Your task to perform on an android device: check google app version Image 0: 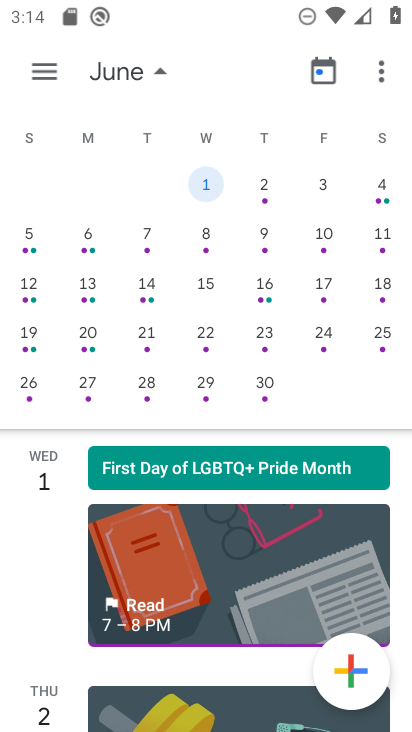
Step 0: press home button
Your task to perform on an android device: check google app version Image 1: 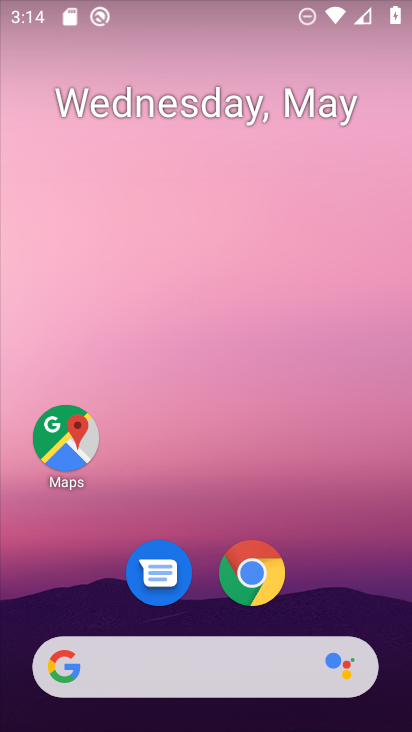
Step 1: drag from (338, 487) to (326, 65)
Your task to perform on an android device: check google app version Image 2: 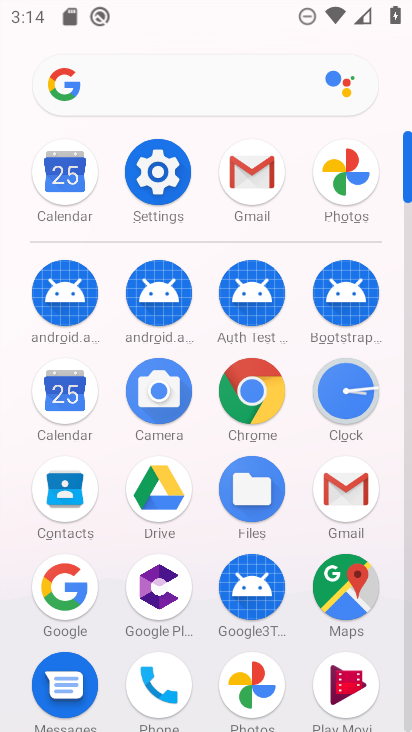
Step 2: click (60, 571)
Your task to perform on an android device: check google app version Image 3: 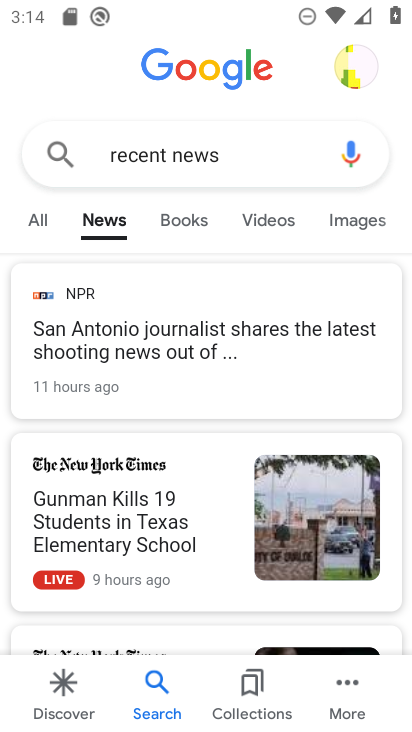
Step 3: click (349, 696)
Your task to perform on an android device: check google app version Image 4: 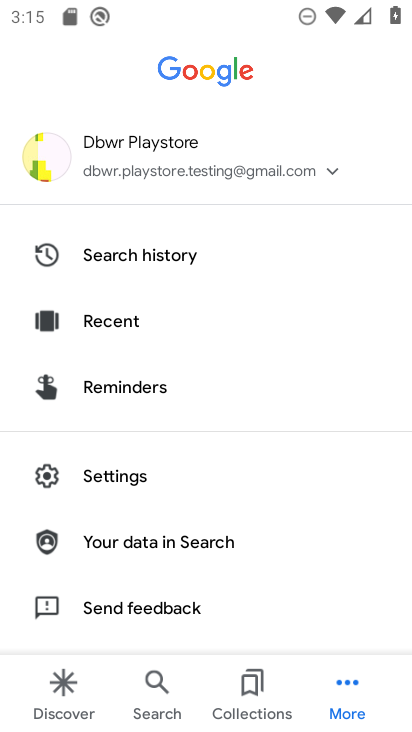
Step 4: drag from (174, 570) to (163, 272)
Your task to perform on an android device: check google app version Image 5: 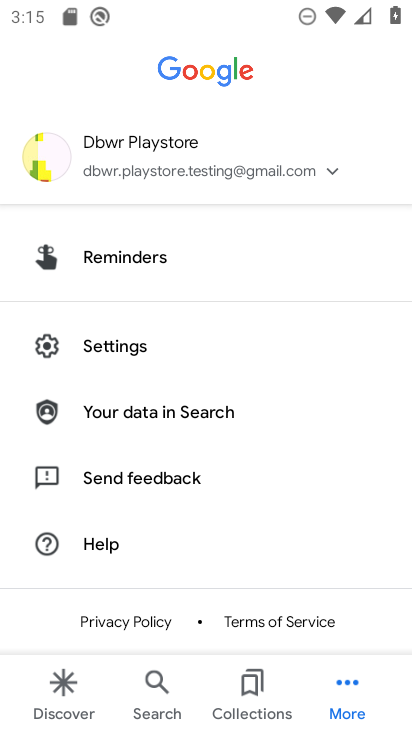
Step 5: click (121, 339)
Your task to perform on an android device: check google app version Image 6: 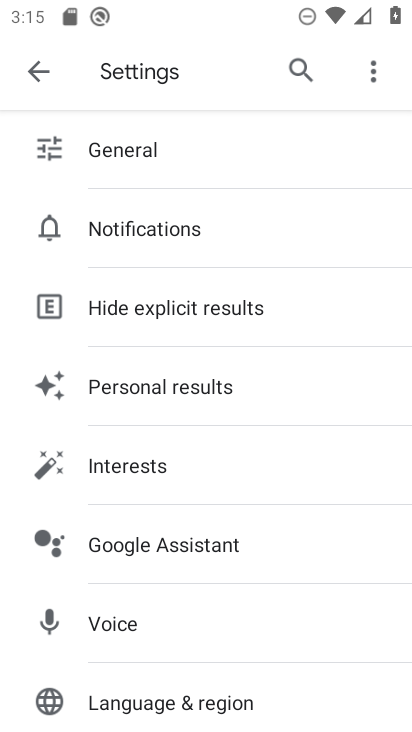
Step 6: drag from (166, 596) to (171, 249)
Your task to perform on an android device: check google app version Image 7: 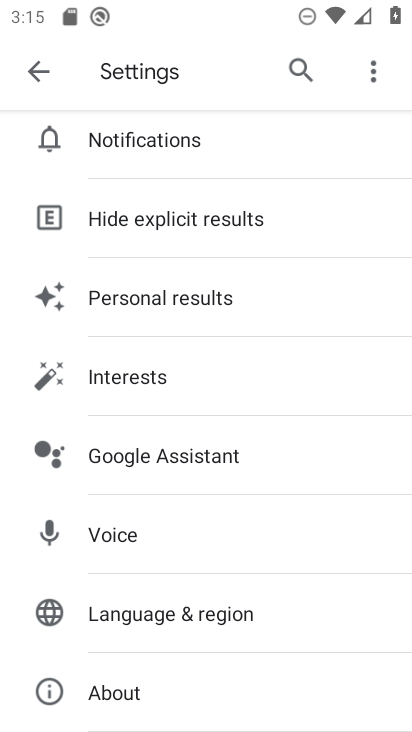
Step 7: click (129, 706)
Your task to perform on an android device: check google app version Image 8: 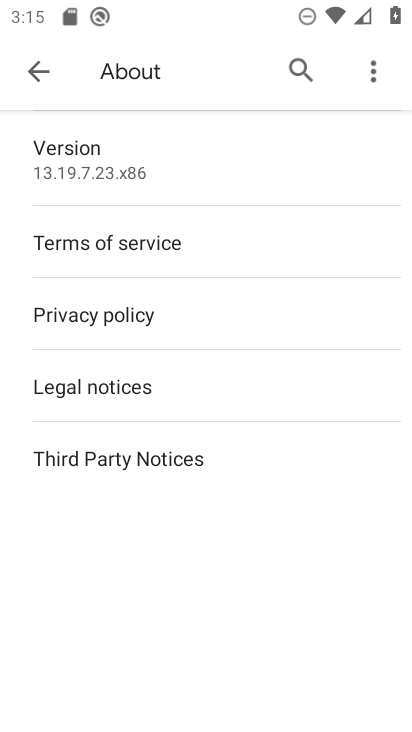
Step 8: click (116, 157)
Your task to perform on an android device: check google app version Image 9: 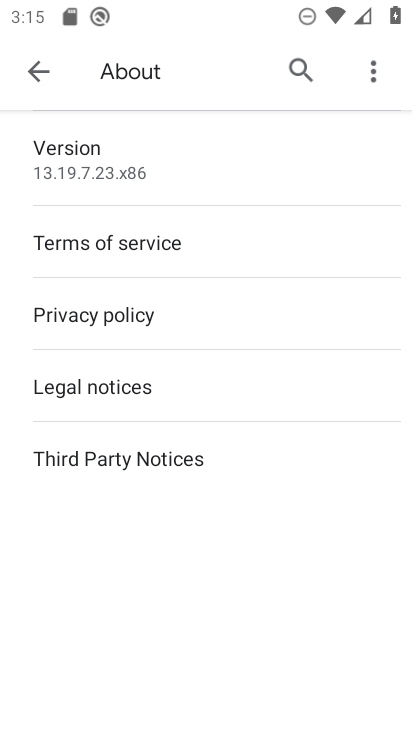
Step 9: task complete